Your task to perform on an android device: toggle priority inbox in the gmail app Image 0: 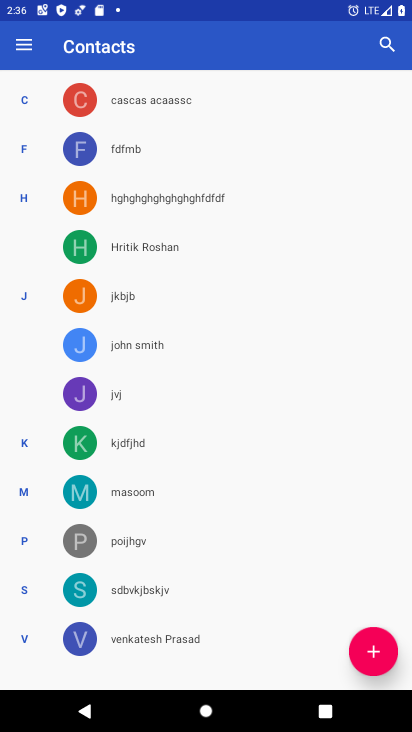
Step 0: press home button
Your task to perform on an android device: toggle priority inbox in the gmail app Image 1: 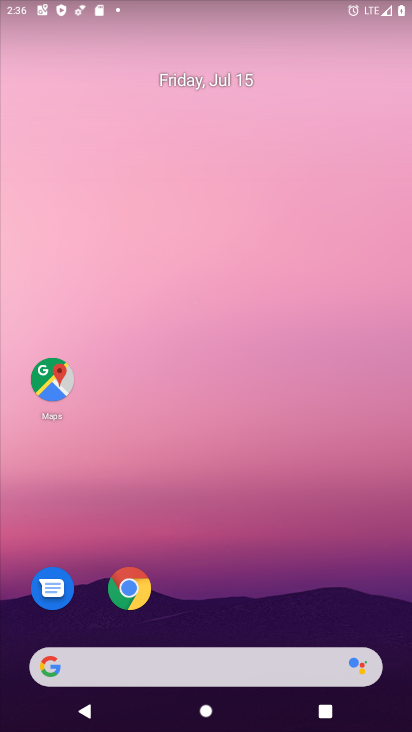
Step 1: drag from (252, 658) to (244, 194)
Your task to perform on an android device: toggle priority inbox in the gmail app Image 2: 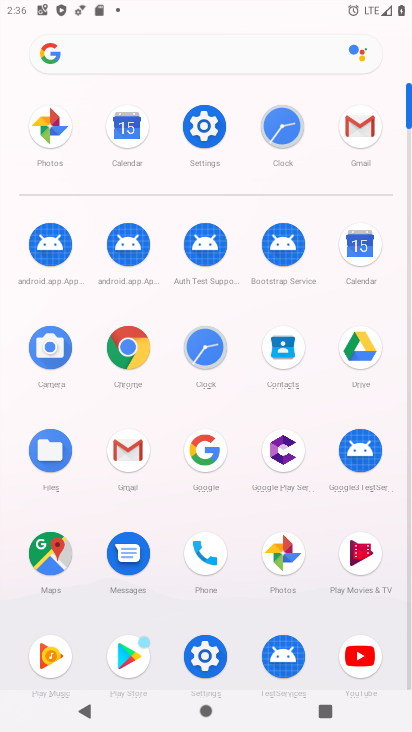
Step 2: click (360, 125)
Your task to perform on an android device: toggle priority inbox in the gmail app Image 3: 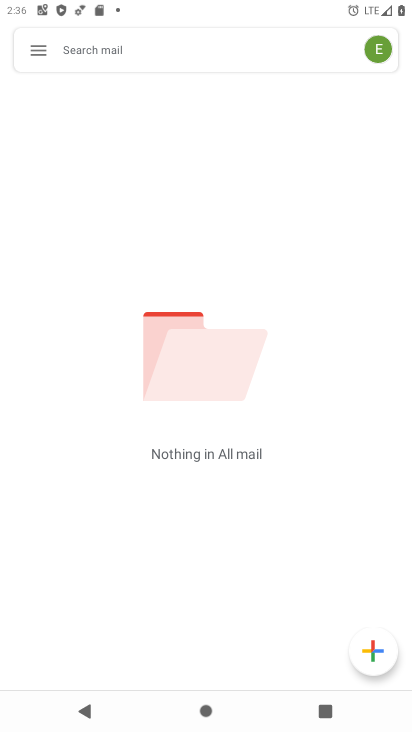
Step 3: click (43, 56)
Your task to perform on an android device: toggle priority inbox in the gmail app Image 4: 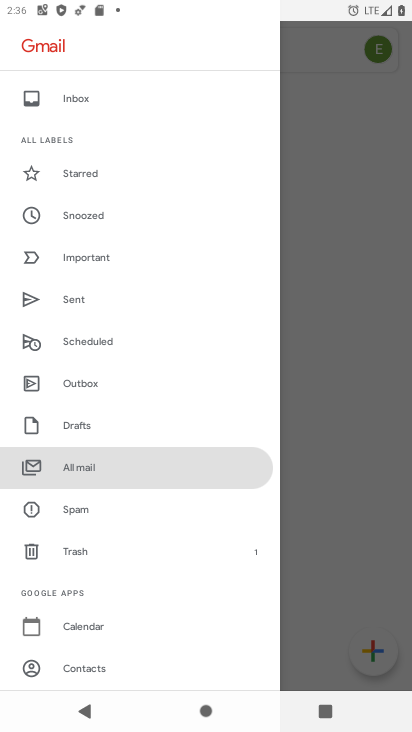
Step 4: drag from (103, 529) to (137, 283)
Your task to perform on an android device: toggle priority inbox in the gmail app Image 5: 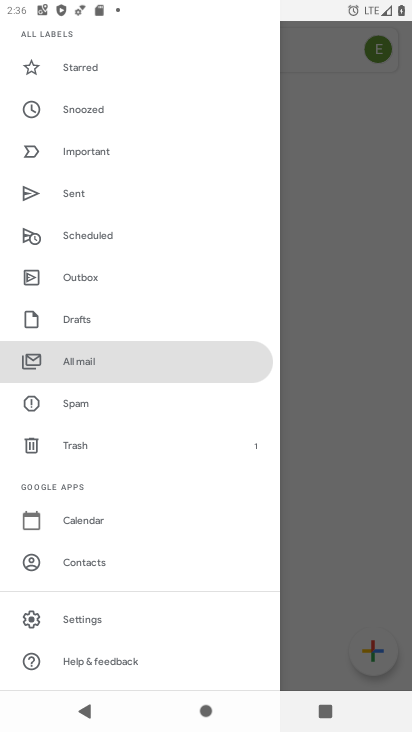
Step 5: click (76, 616)
Your task to perform on an android device: toggle priority inbox in the gmail app Image 6: 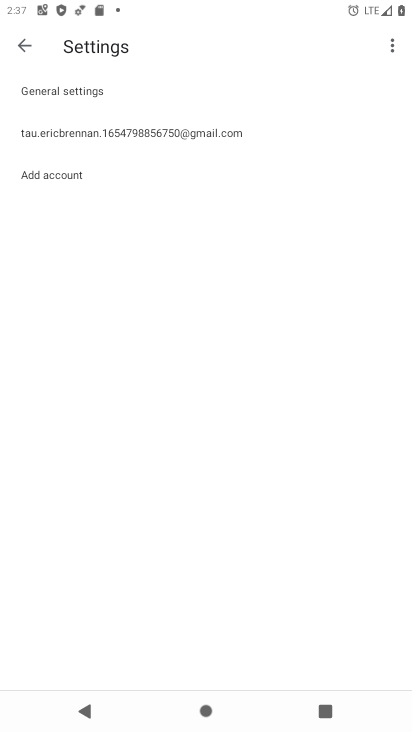
Step 6: click (164, 132)
Your task to perform on an android device: toggle priority inbox in the gmail app Image 7: 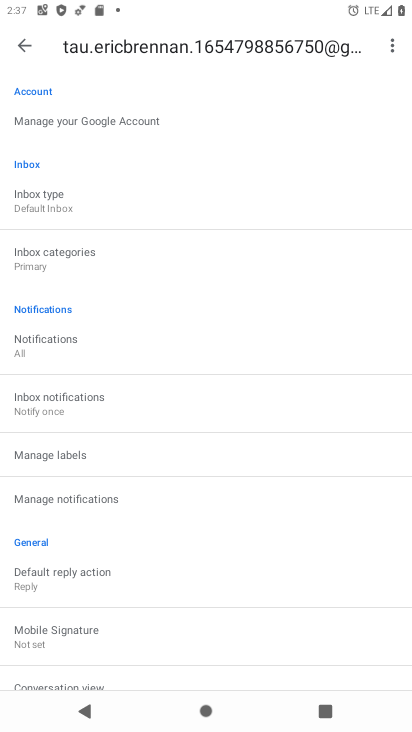
Step 7: click (56, 208)
Your task to perform on an android device: toggle priority inbox in the gmail app Image 8: 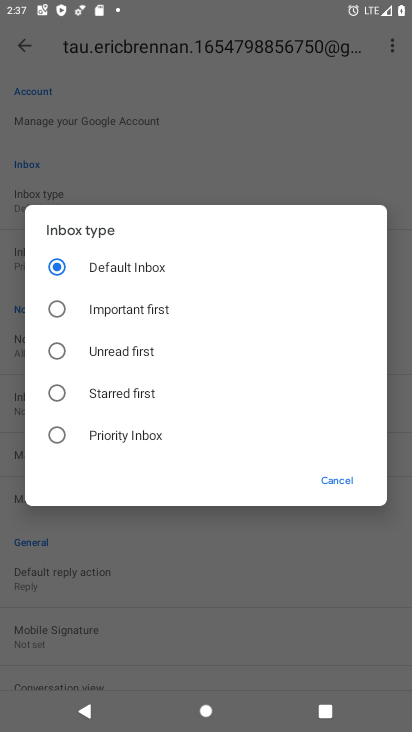
Step 8: click (56, 435)
Your task to perform on an android device: toggle priority inbox in the gmail app Image 9: 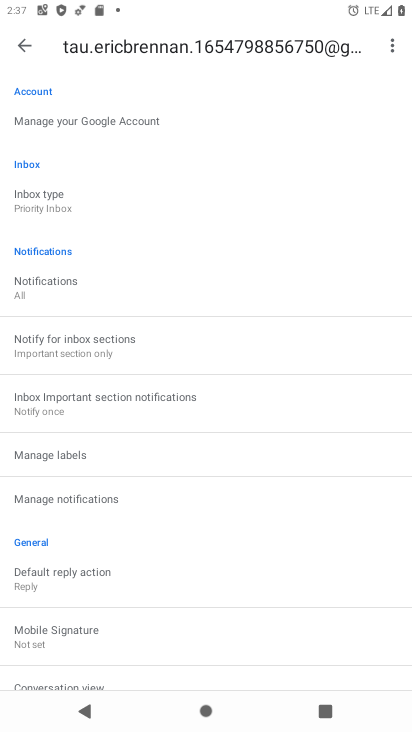
Step 9: task complete